Your task to perform on an android device: turn off notifications in google photos Image 0: 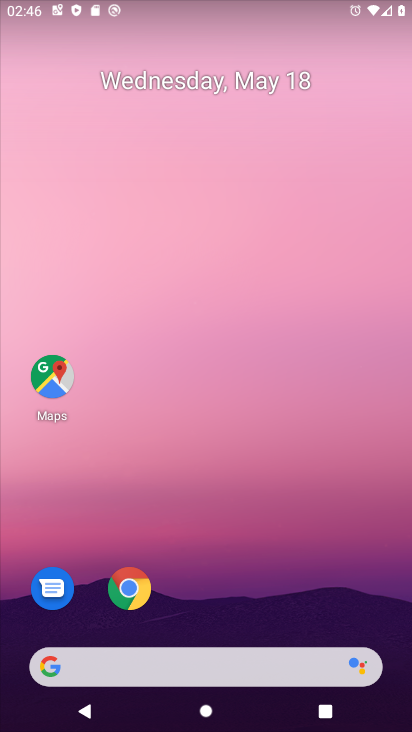
Step 0: drag from (45, 598) to (253, 269)
Your task to perform on an android device: turn off notifications in google photos Image 1: 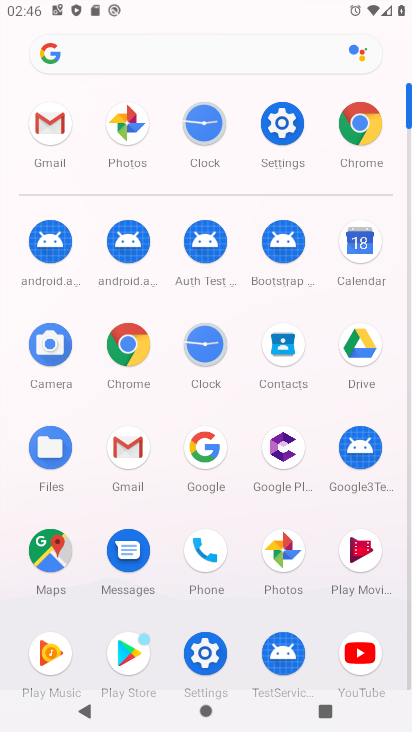
Step 1: click (269, 552)
Your task to perform on an android device: turn off notifications in google photos Image 2: 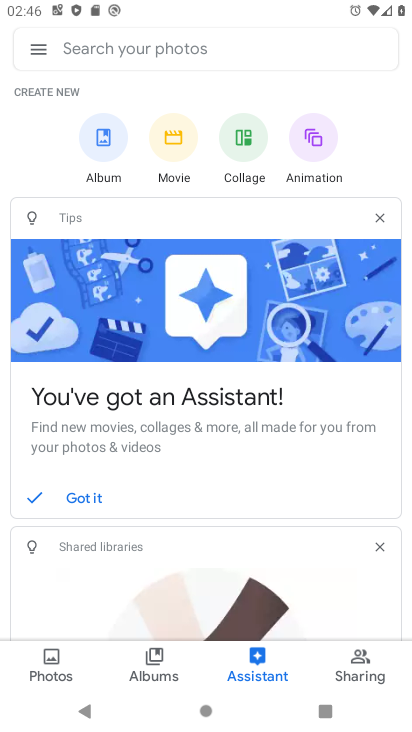
Step 2: click (40, 48)
Your task to perform on an android device: turn off notifications in google photos Image 3: 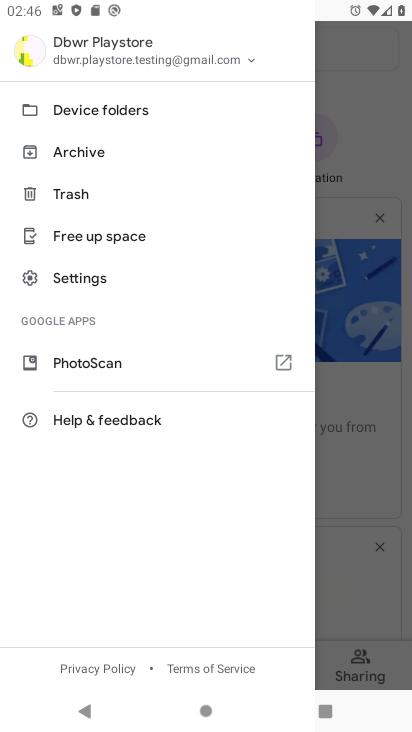
Step 3: click (125, 276)
Your task to perform on an android device: turn off notifications in google photos Image 4: 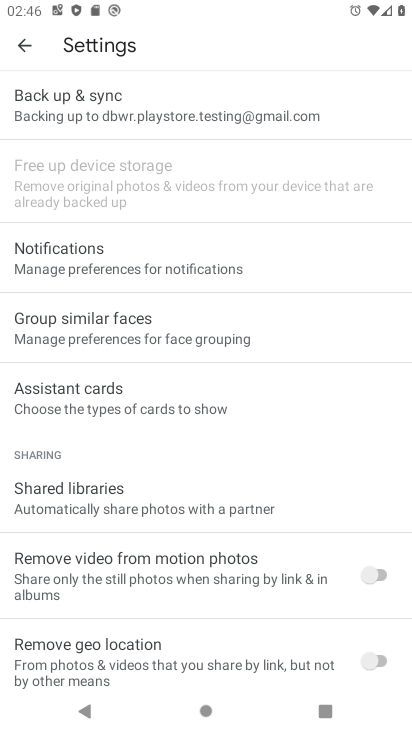
Step 4: drag from (15, 565) to (202, 156)
Your task to perform on an android device: turn off notifications in google photos Image 5: 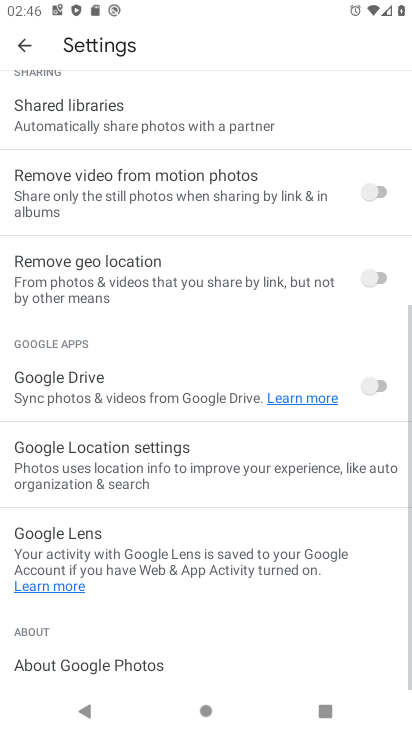
Step 5: drag from (222, 100) to (118, 715)
Your task to perform on an android device: turn off notifications in google photos Image 6: 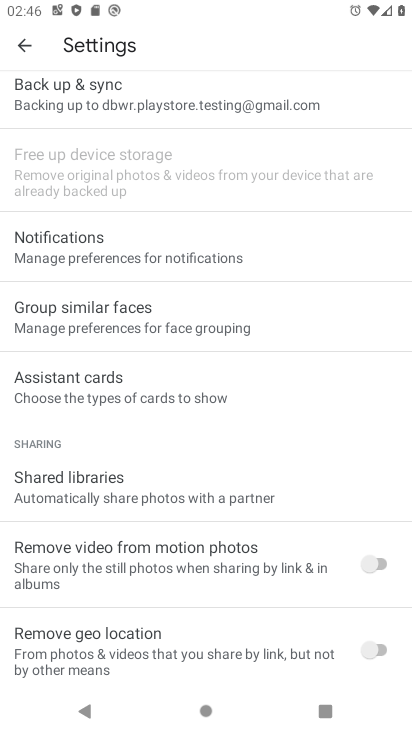
Step 6: click (155, 256)
Your task to perform on an android device: turn off notifications in google photos Image 7: 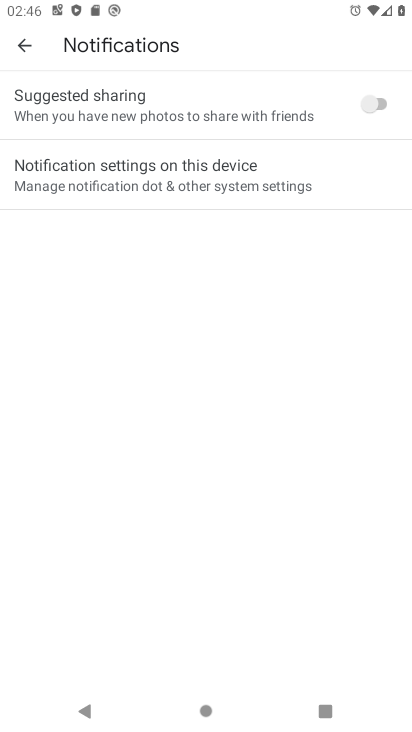
Step 7: click (172, 168)
Your task to perform on an android device: turn off notifications in google photos Image 8: 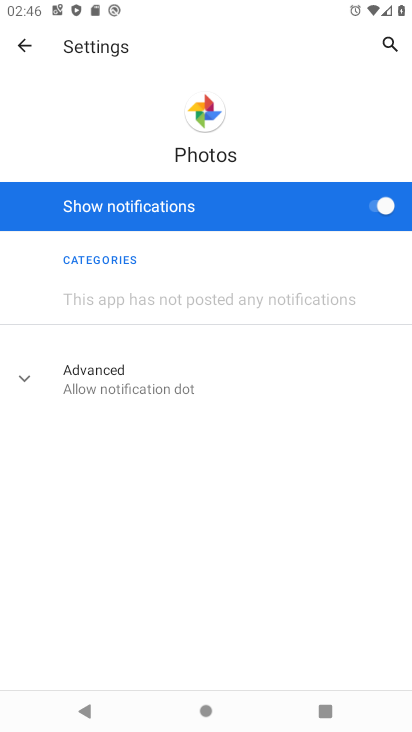
Step 8: click (388, 202)
Your task to perform on an android device: turn off notifications in google photos Image 9: 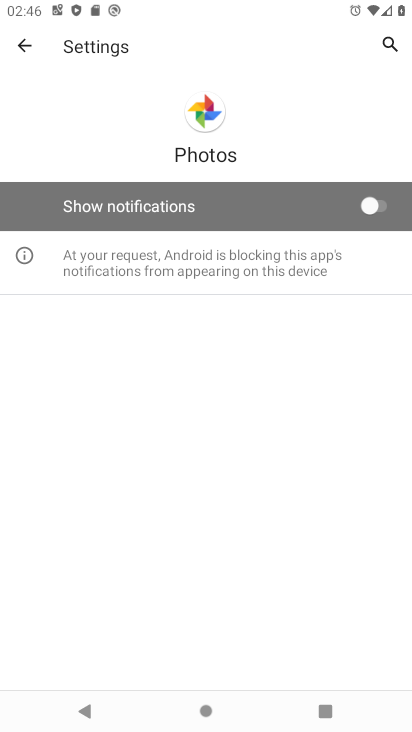
Step 9: task complete